Your task to perform on an android device: open the mobile data screen to see how much data has been used Image 0: 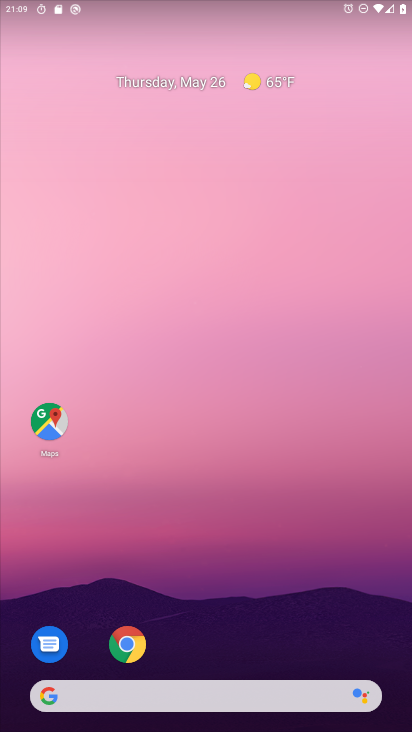
Step 0: drag from (248, 549) to (249, 58)
Your task to perform on an android device: open the mobile data screen to see how much data has been used Image 1: 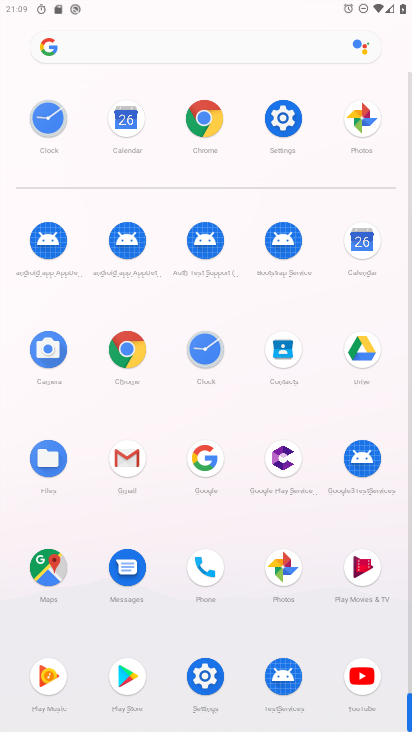
Step 1: click (275, 129)
Your task to perform on an android device: open the mobile data screen to see how much data has been used Image 2: 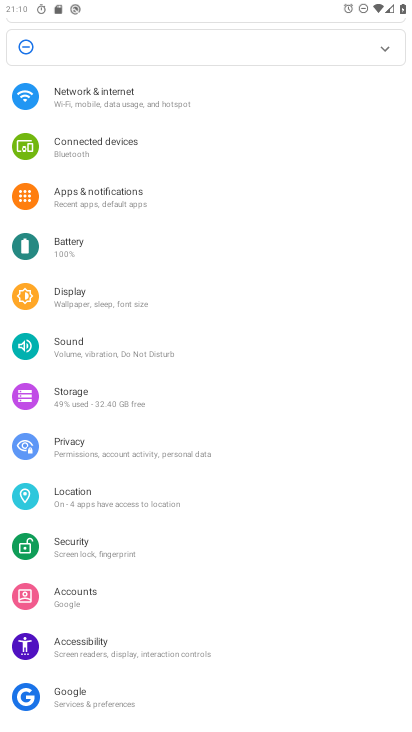
Step 2: drag from (159, 638) to (231, 336)
Your task to perform on an android device: open the mobile data screen to see how much data has been used Image 3: 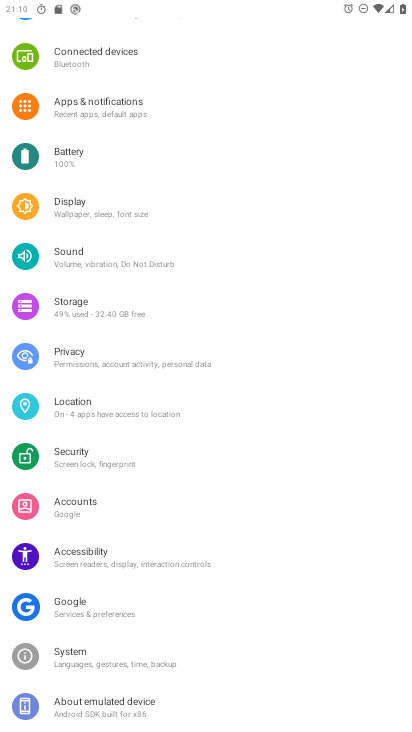
Step 3: drag from (174, 648) to (306, 196)
Your task to perform on an android device: open the mobile data screen to see how much data has been used Image 4: 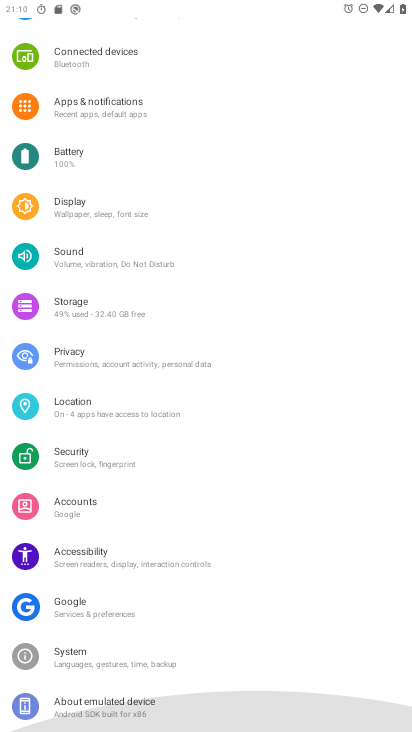
Step 4: drag from (307, 183) to (304, 729)
Your task to perform on an android device: open the mobile data screen to see how much data has been used Image 5: 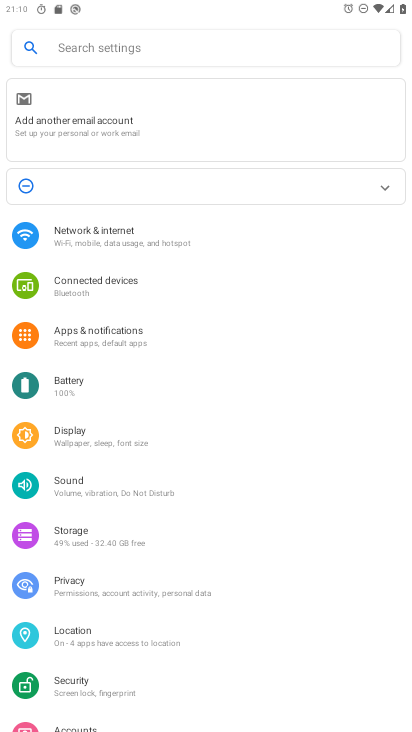
Step 5: click (187, 243)
Your task to perform on an android device: open the mobile data screen to see how much data has been used Image 6: 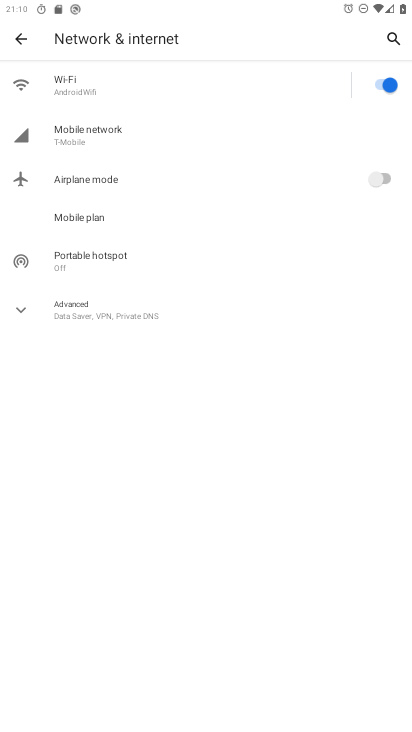
Step 6: click (124, 144)
Your task to perform on an android device: open the mobile data screen to see how much data has been used Image 7: 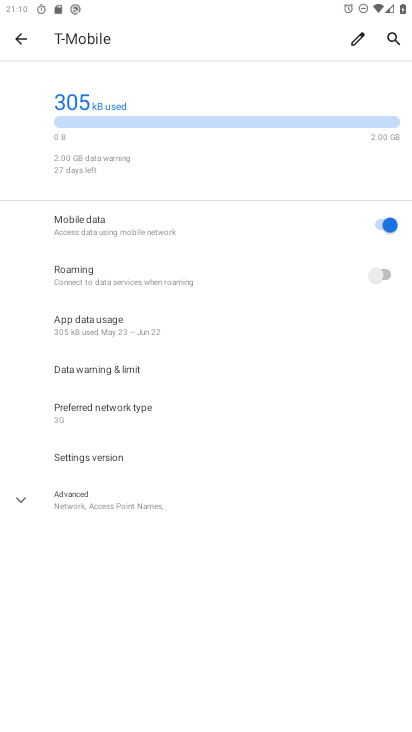
Step 7: task complete